Your task to perform on an android device: Open Google Maps Image 0: 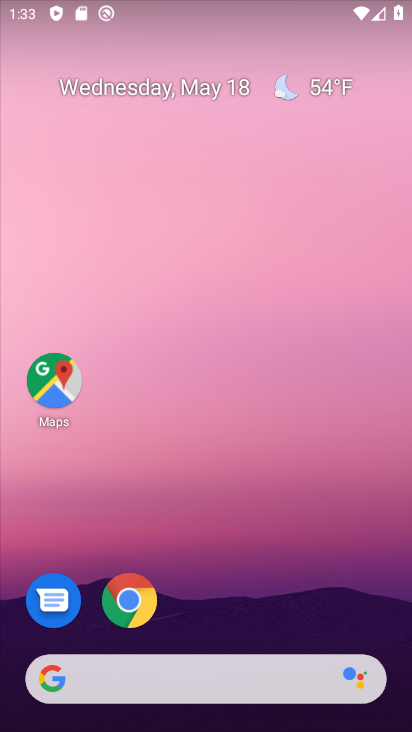
Step 0: click (58, 366)
Your task to perform on an android device: Open Google Maps Image 1: 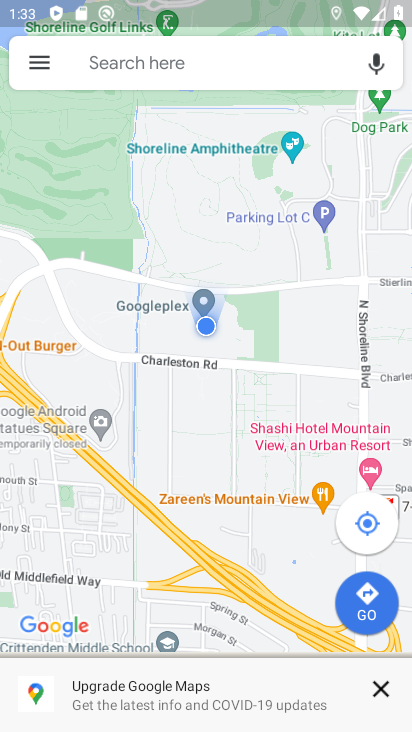
Step 1: task complete